Your task to perform on an android device: Turn off the flashlight Image 0: 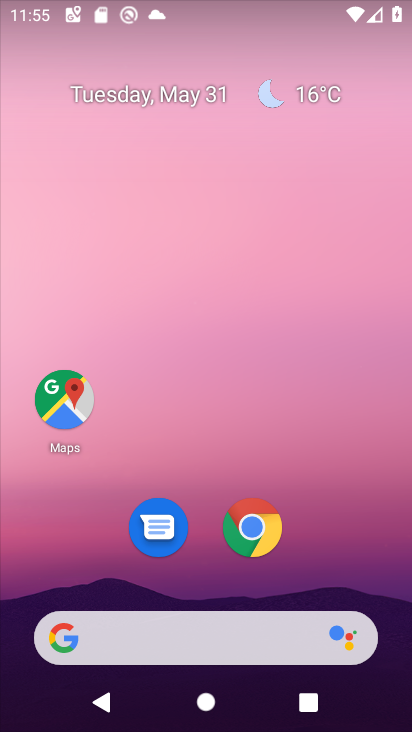
Step 0: drag from (193, 6) to (195, 541)
Your task to perform on an android device: Turn off the flashlight Image 1: 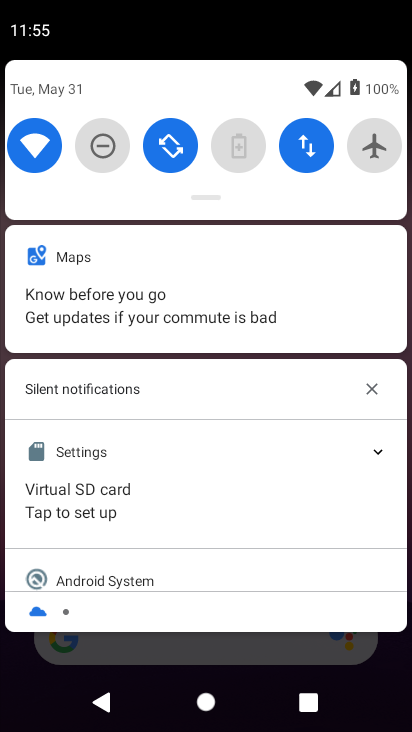
Step 1: task complete